Your task to perform on an android device: turn on sleep mode Image 0: 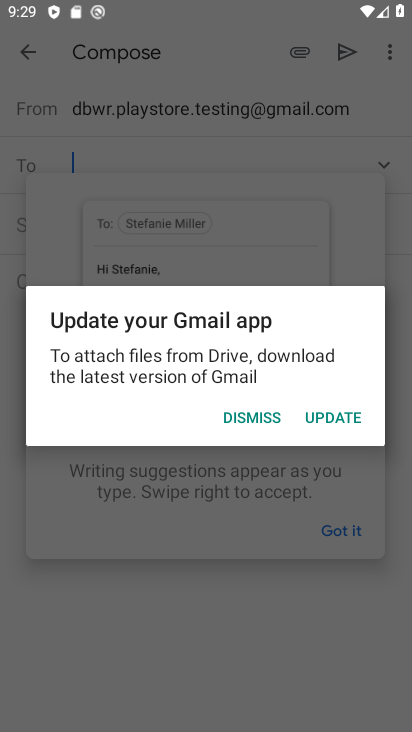
Step 0: click (352, 415)
Your task to perform on an android device: turn on sleep mode Image 1: 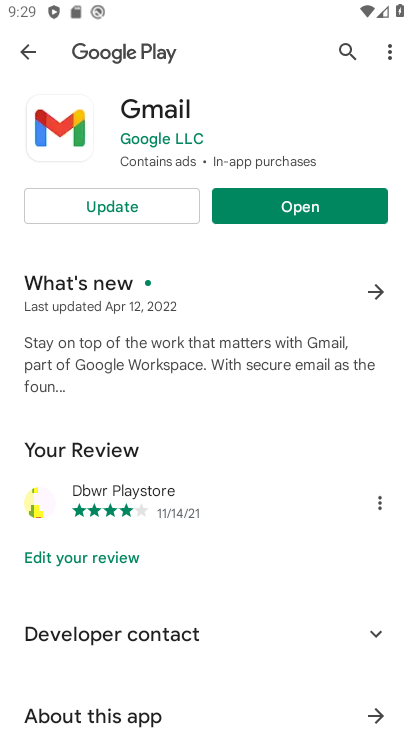
Step 1: click (114, 207)
Your task to perform on an android device: turn on sleep mode Image 2: 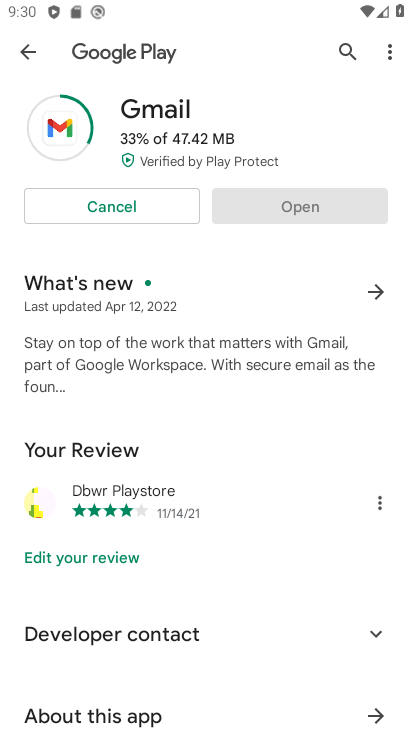
Step 2: click (122, 202)
Your task to perform on an android device: turn on sleep mode Image 3: 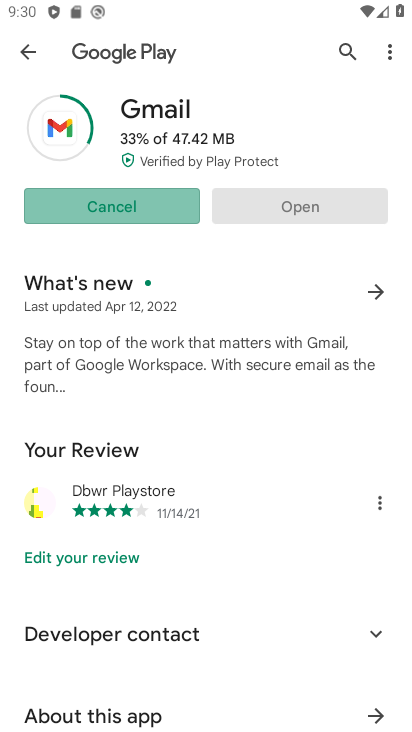
Step 3: click (121, 203)
Your task to perform on an android device: turn on sleep mode Image 4: 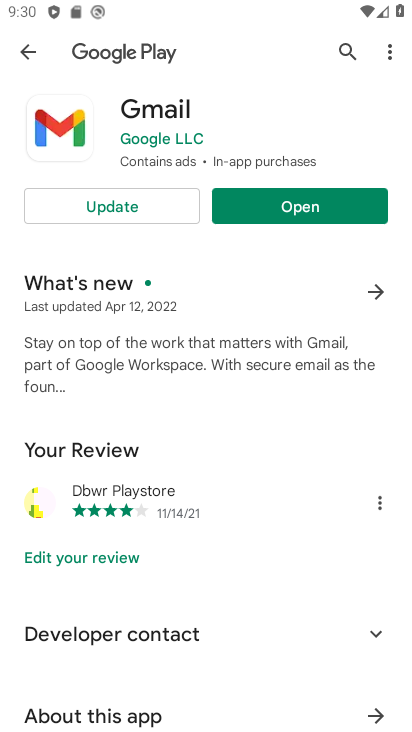
Step 4: click (31, 48)
Your task to perform on an android device: turn on sleep mode Image 5: 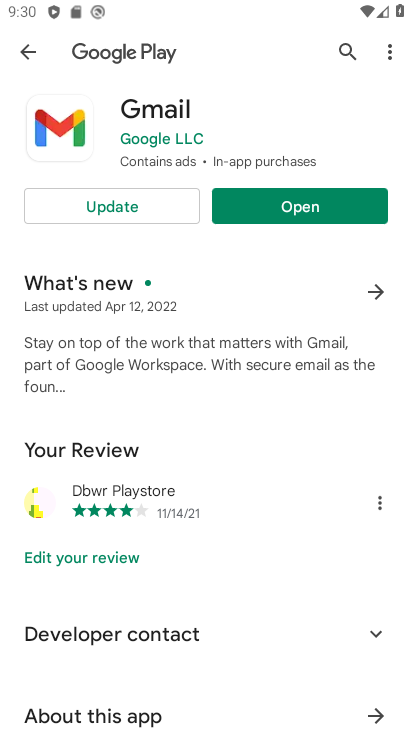
Step 5: click (28, 51)
Your task to perform on an android device: turn on sleep mode Image 6: 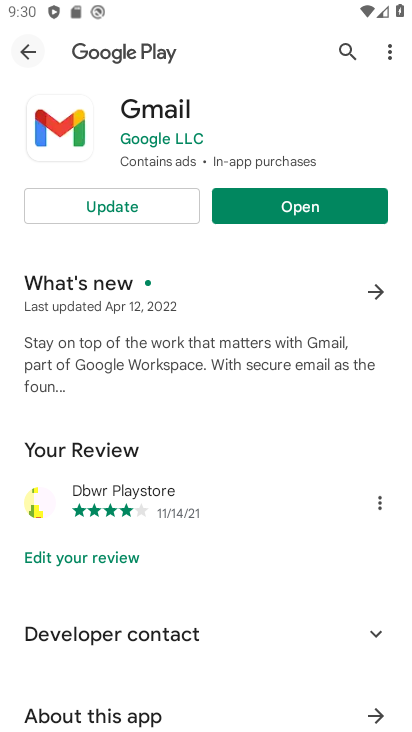
Step 6: click (28, 50)
Your task to perform on an android device: turn on sleep mode Image 7: 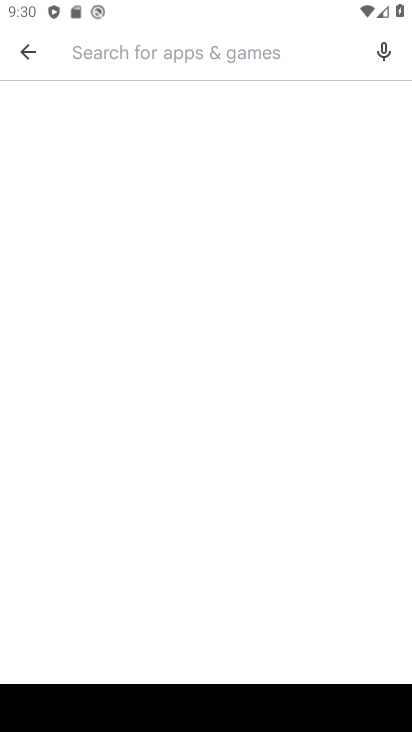
Step 7: click (23, 40)
Your task to perform on an android device: turn on sleep mode Image 8: 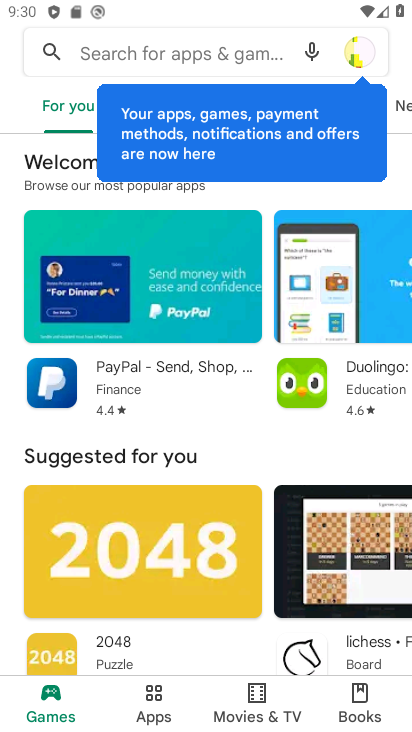
Step 8: press home button
Your task to perform on an android device: turn on sleep mode Image 9: 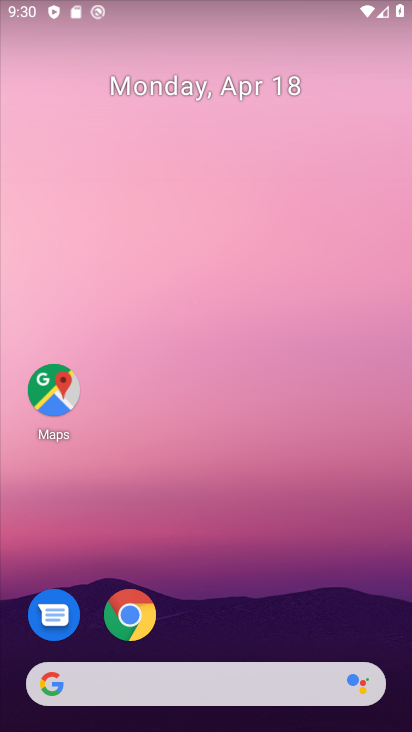
Step 9: drag from (165, 201) to (148, 44)
Your task to perform on an android device: turn on sleep mode Image 10: 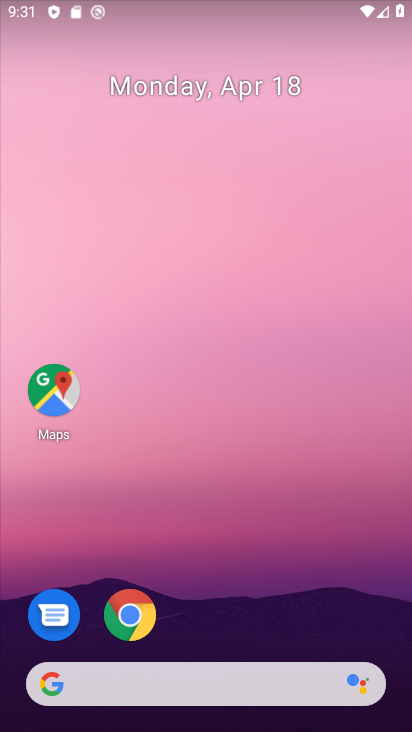
Step 10: drag from (235, 630) to (70, 41)
Your task to perform on an android device: turn on sleep mode Image 11: 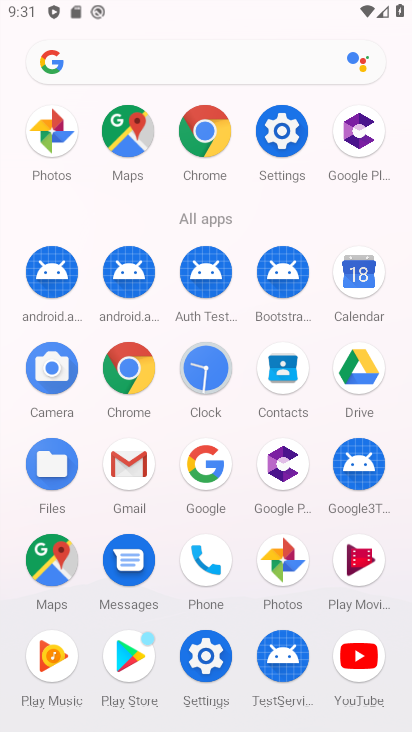
Step 11: click (277, 125)
Your task to perform on an android device: turn on sleep mode Image 12: 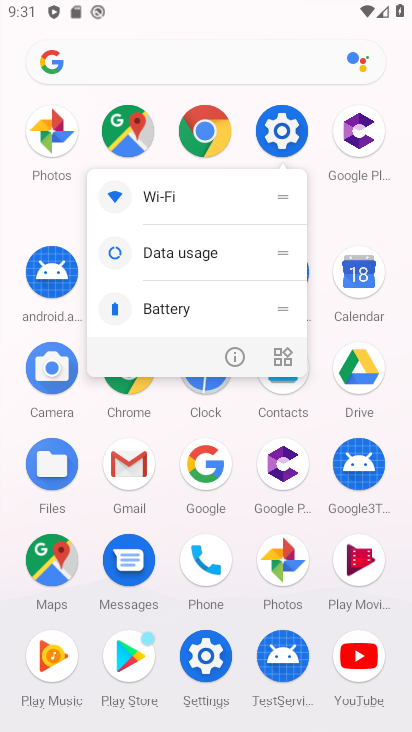
Step 12: click (277, 125)
Your task to perform on an android device: turn on sleep mode Image 13: 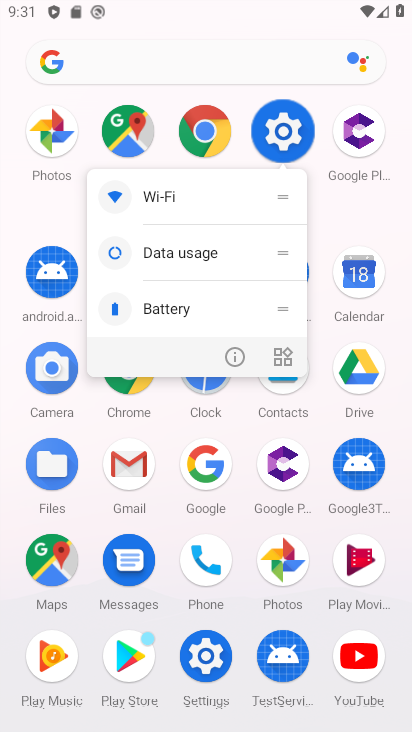
Step 13: click (277, 125)
Your task to perform on an android device: turn on sleep mode Image 14: 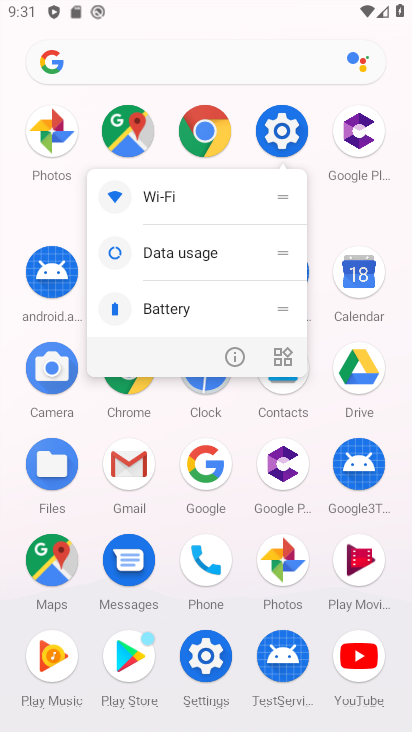
Step 14: click (282, 137)
Your task to perform on an android device: turn on sleep mode Image 15: 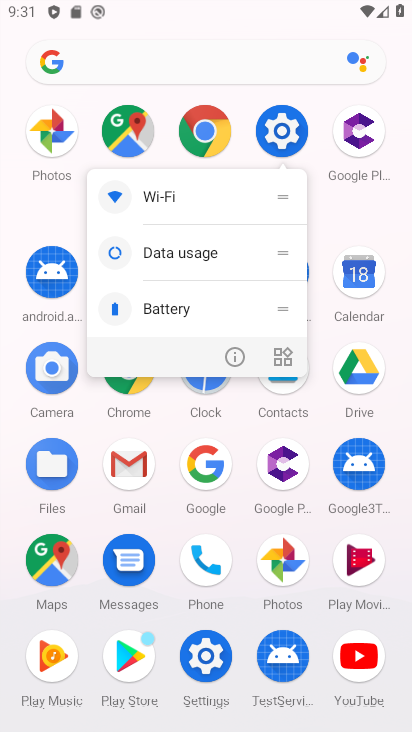
Step 15: click (284, 134)
Your task to perform on an android device: turn on sleep mode Image 16: 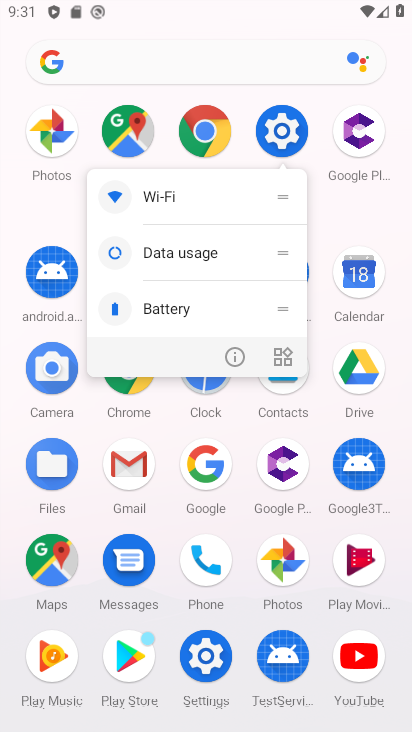
Step 16: click (268, 125)
Your task to perform on an android device: turn on sleep mode Image 17: 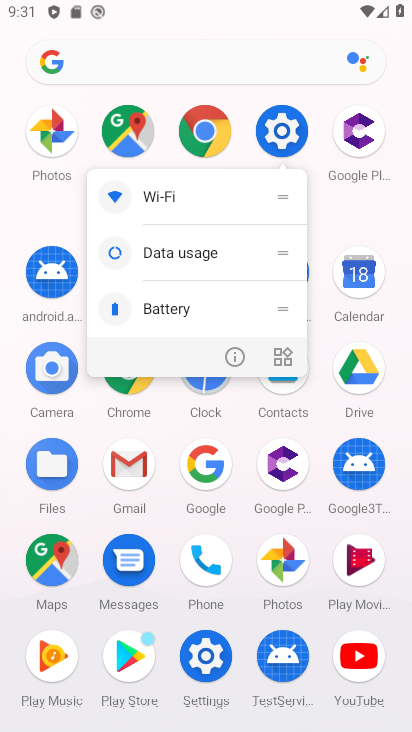
Step 17: click (275, 146)
Your task to perform on an android device: turn on sleep mode Image 18: 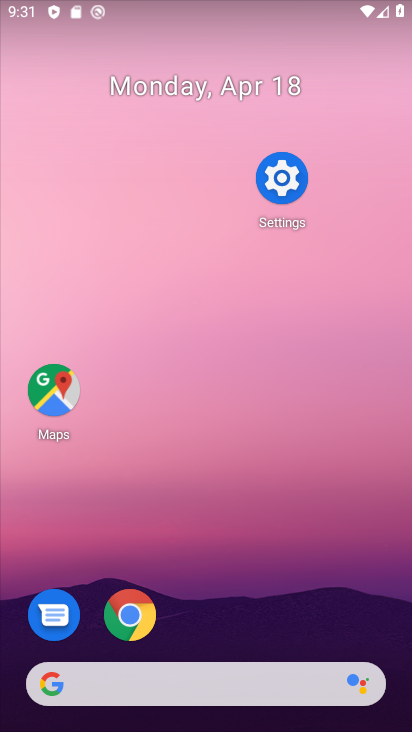
Step 18: click (288, 181)
Your task to perform on an android device: turn on sleep mode Image 19: 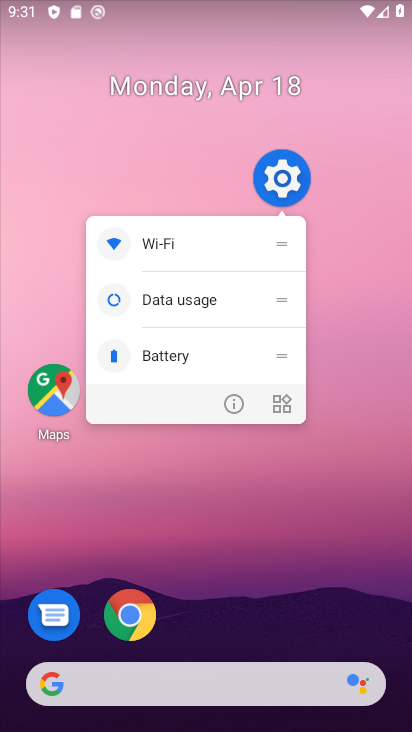
Step 19: click (264, 208)
Your task to perform on an android device: turn on sleep mode Image 20: 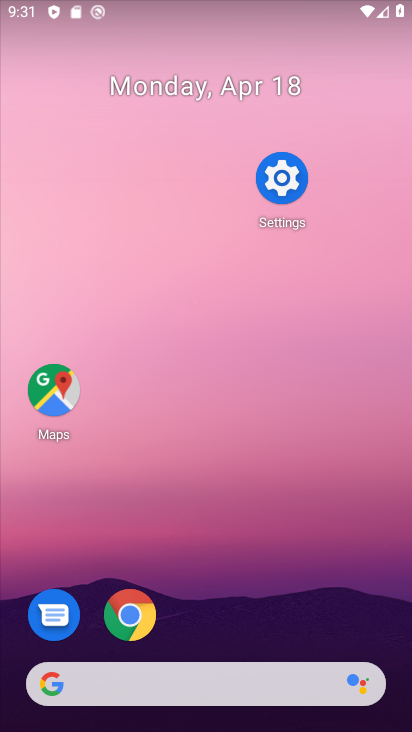
Step 20: drag from (228, 634) to (90, 76)
Your task to perform on an android device: turn on sleep mode Image 21: 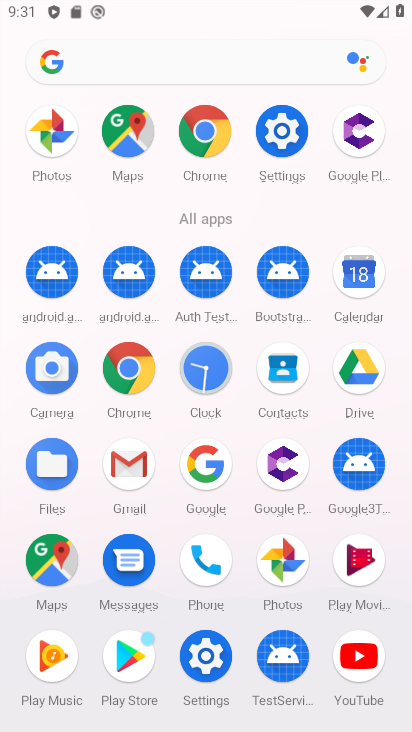
Step 21: click (285, 130)
Your task to perform on an android device: turn on sleep mode Image 22: 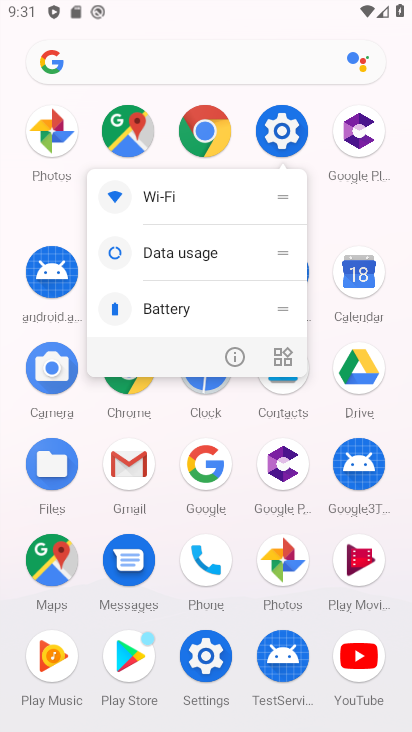
Step 22: click (285, 131)
Your task to perform on an android device: turn on sleep mode Image 23: 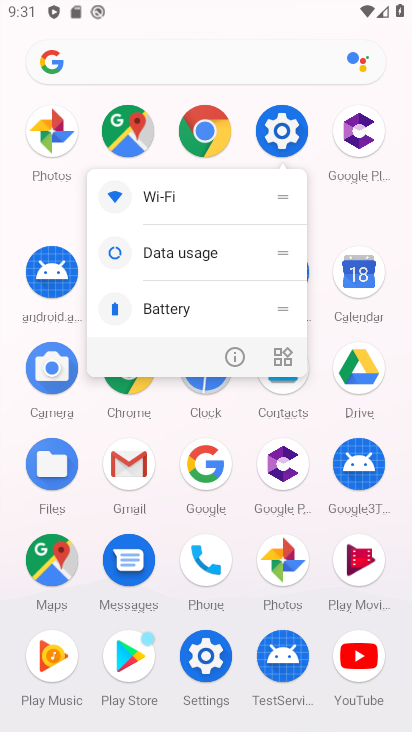
Step 23: click (284, 129)
Your task to perform on an android device: turn on sleep mode Image 24: 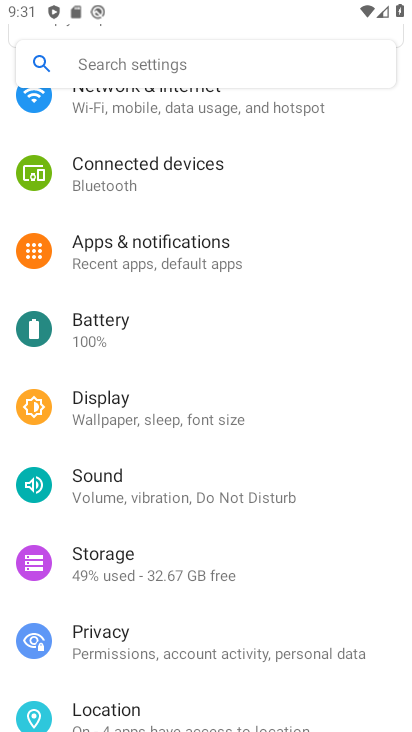
Step 24: click (100, 419)
Your task to perform on an android device: turn on sleep mode Image 25: 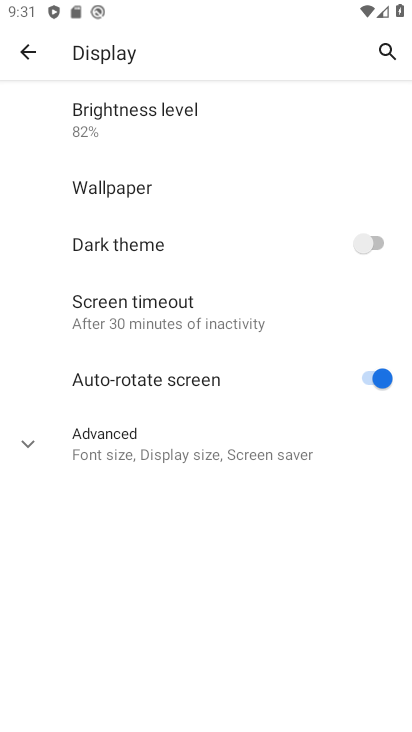
Step 25: click (160, 313)
Your task to perform on an android device: turn on sleep mode Image 26: 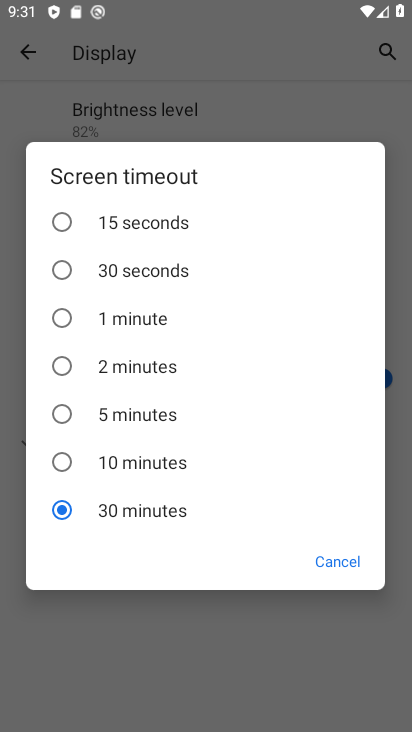
Step 26: task complete